Your task to perform on an android device: check data usage Image 0: 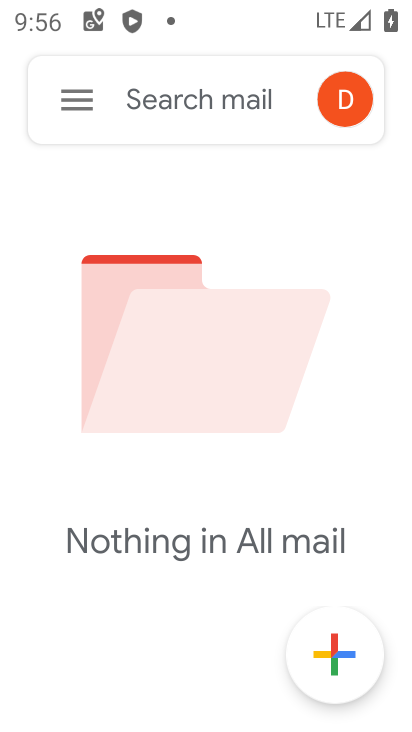
Step 0: press home button
Your task to perform on an android device: check data usage Image 1: 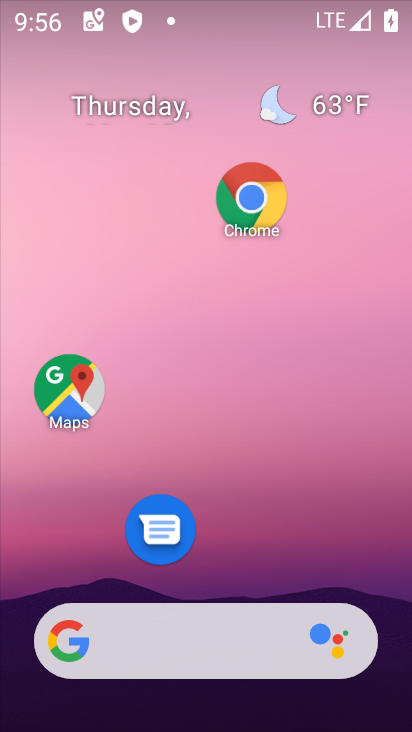
Step 1: drag from (251, 628) to (266, 136)
Your task to perform on an android device: check data usage Image 2: 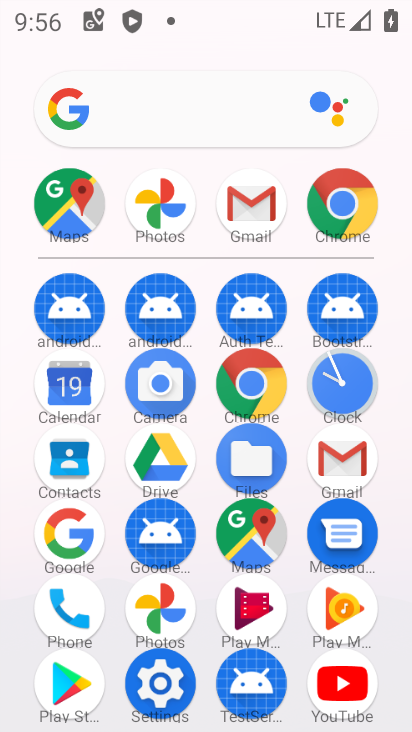
Step 2: click (145, 684)
Your task to perform on an android device: check data usage Image 3: 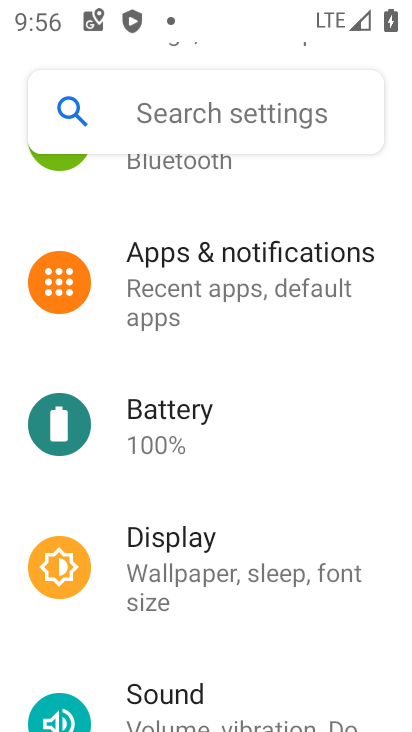
Step 3: drag from (251, 374) to (184, 709)
Your task to perform on an android device: check data usage Image 4: 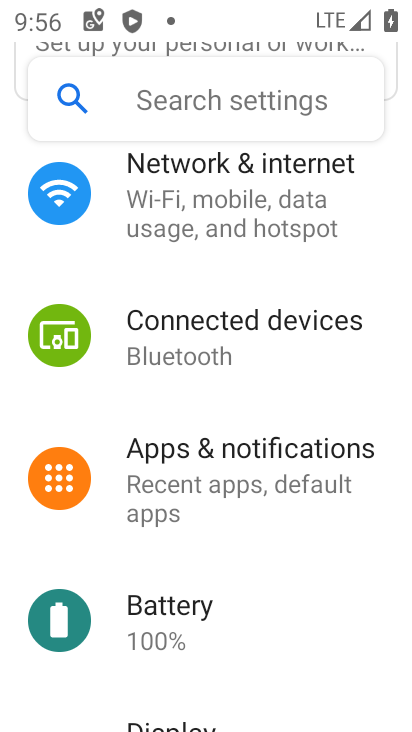
Step 4: click (216, 224)
Your task to perform on an android device: check data usage Image 5: 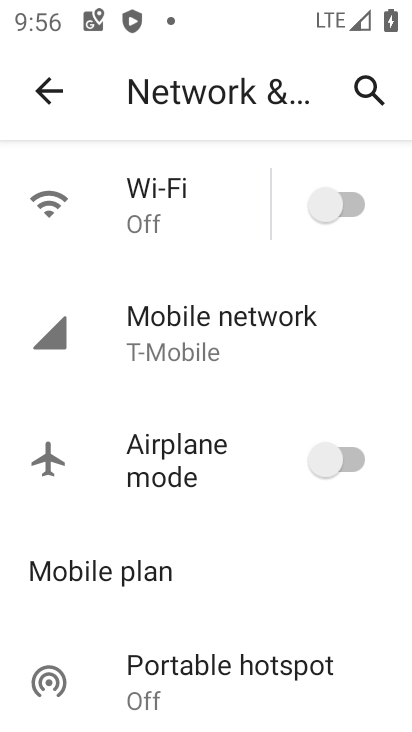
Step 5: click (243, 347)
Your task to perform on an android device: check data usage Image 6: 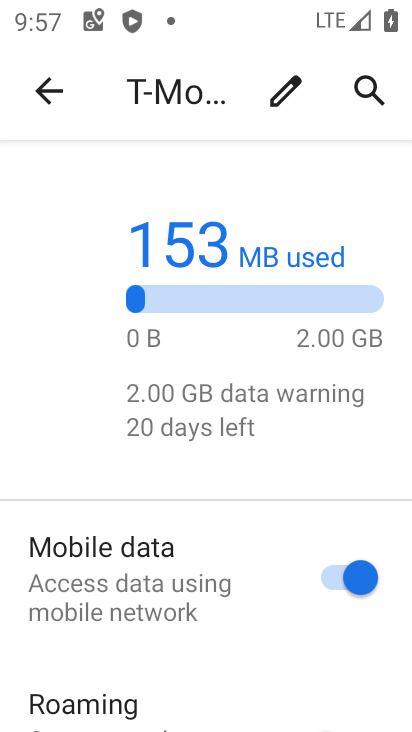
Step 6: drag from (228, 589) to (245, 5)
Your task to perform on an android device: check data usage Image 7: 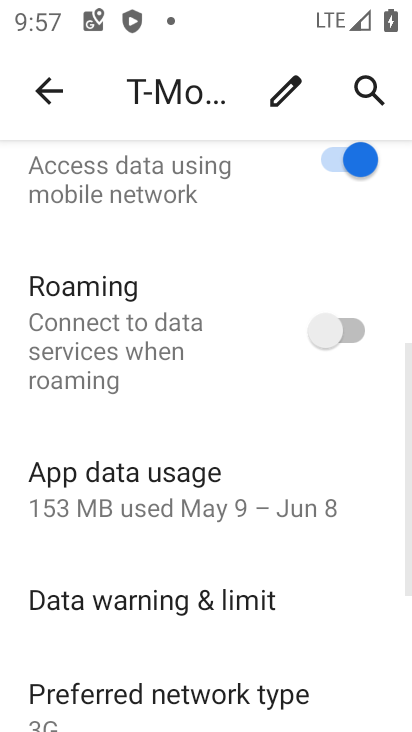
Step 7: click (111, 494)
Your task to perform on an android device: check data usage Image 8: 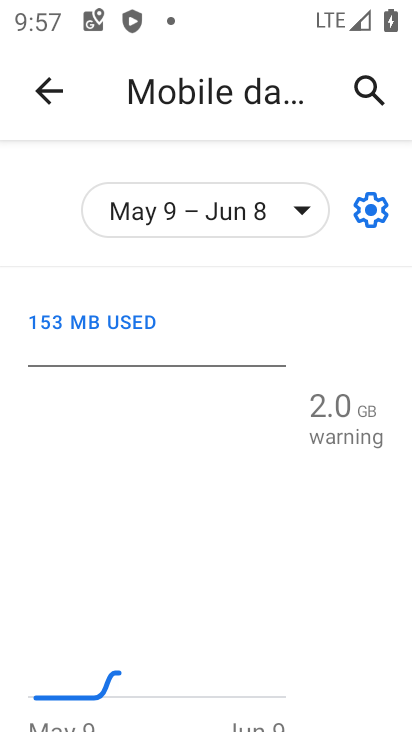
Step 8: task complete